Your task to perform on an android device: Open the calendar app, open the side menu, and click the "Day" option Image 0: 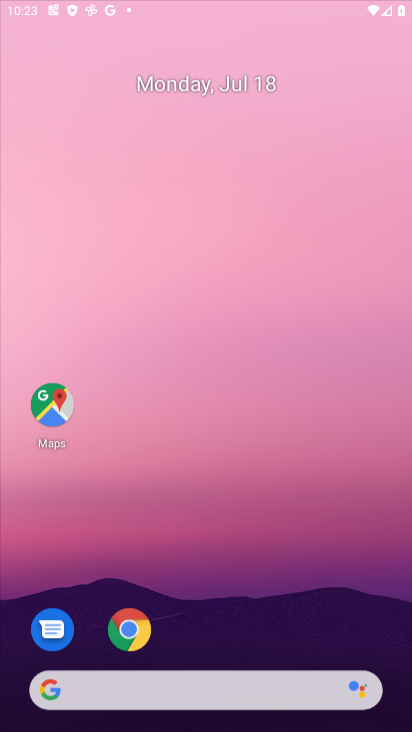
Step 0: drag from (348, 508) to (191, 41)
Your task to perform on an android device: Open the calendar app, open the side menu, and click the "Day" option Image 1: 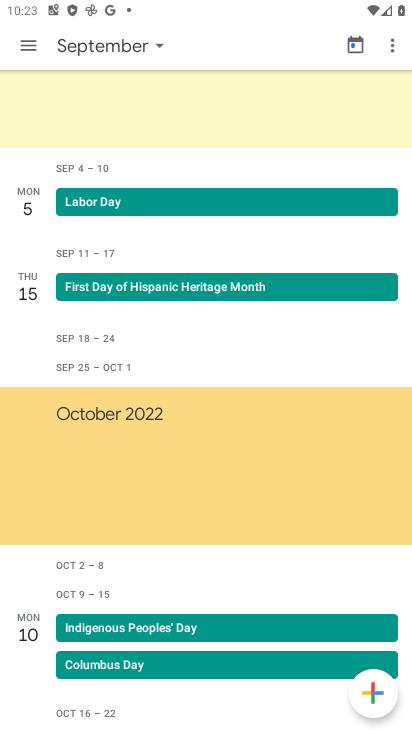
Step 1: press home button
Your task to perform on an android device: Open the calendar app, open the side menu, and click the "Day" option Image 2: 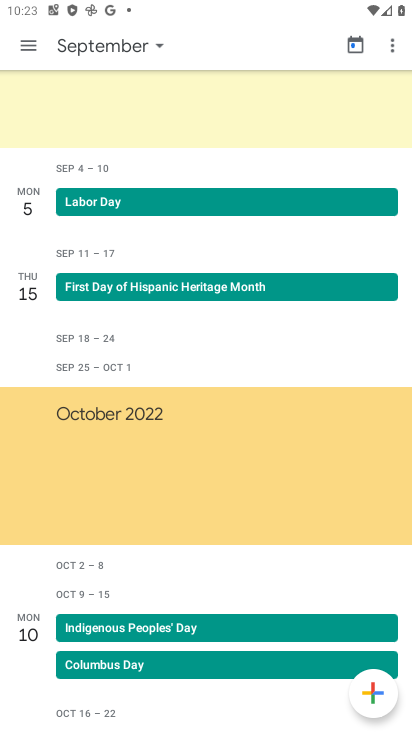
Step 2: drag from (394, 628) to (255, 23)
Your task to perform on an android device: Open the calendar app, open the side menu, and click the "Day" option Image 3: 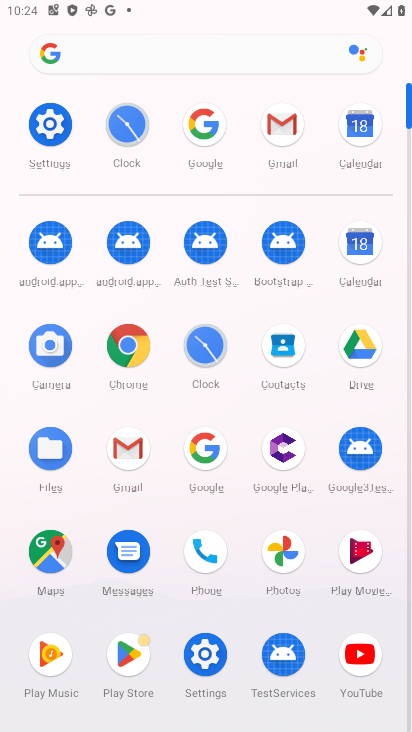
Step 3: click (373, 241)
Your task to perform on an android device: Open the calendar app, open the side menu, and click the "Day" option Image 4: 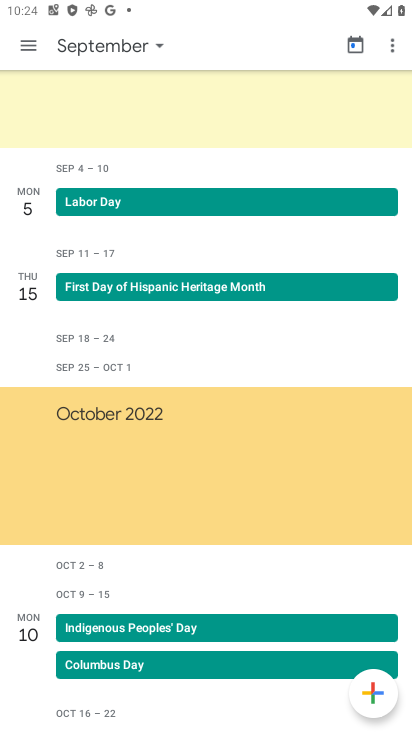
Step 4: click (29, 51)
Your task to perform on an android device: Open the calendar app, open the side menu, and click the "Day" option Image 5: 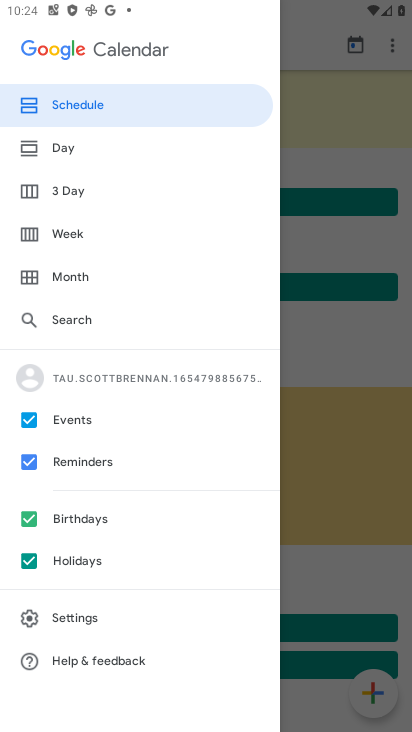
Step 5: click (92, 148)
Your task to perform on an android device: Open the calendar app, open the side menu, and click the "Day" option Image 6: 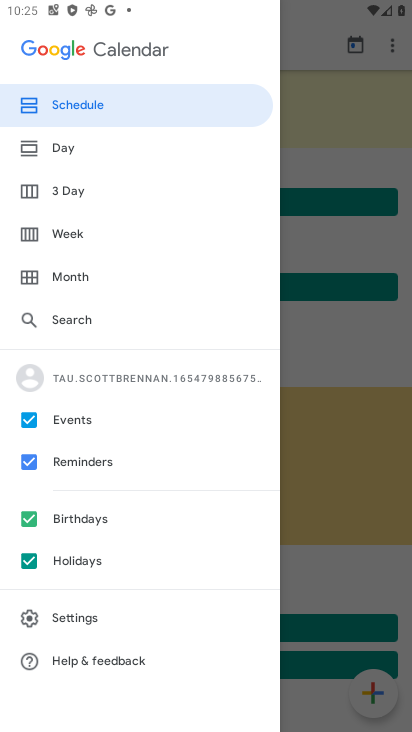
Step 6: click (62, 150)
Your task to perform on an android device: Open the calendar app, open the side menu, and click the "Day" option Image 7: 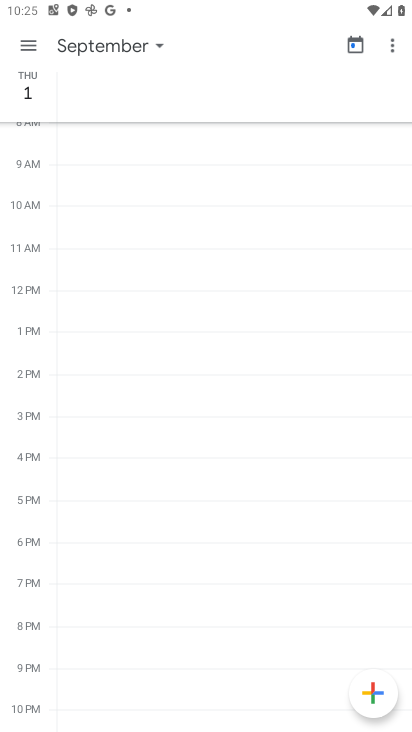
Step 7: task complete